Your task to perform on an android device: turn off improve location accuracy Image 0: 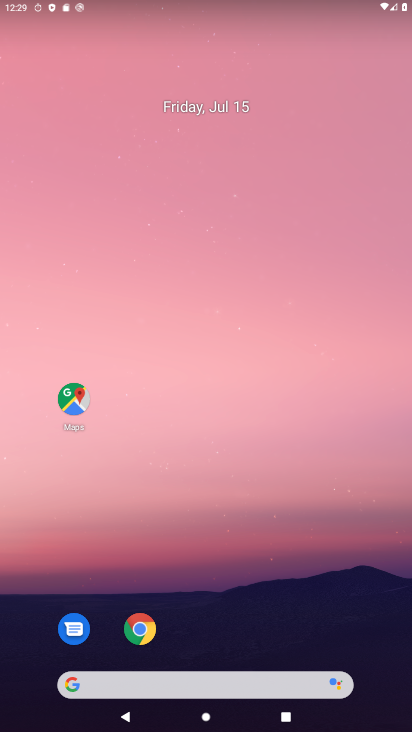
Step 0: drag from (248, 539) to (187, 2)
Your task to perform on an android device: turn off improve location accuracy Image 1: 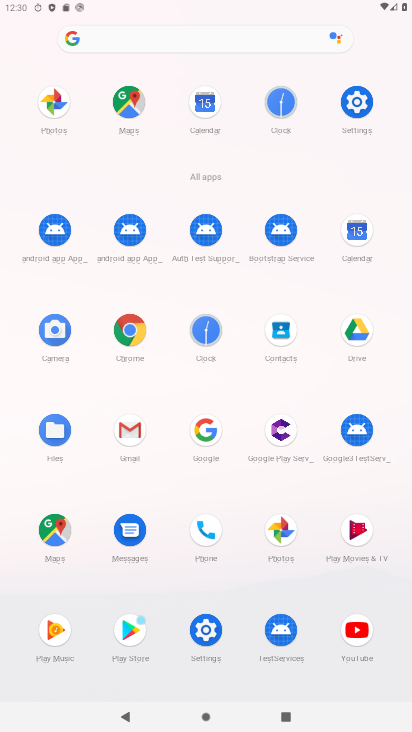
Step 1: click (210, 632)
Your task to perform on an android device: turn off improve location accuracy Image 2: 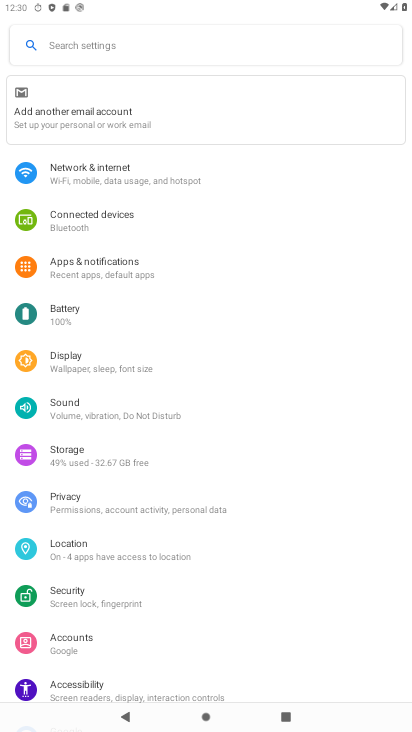
Step 2: click (106, 550)
Your task to perform on an android device: turn off improve location accuracy Image 3: 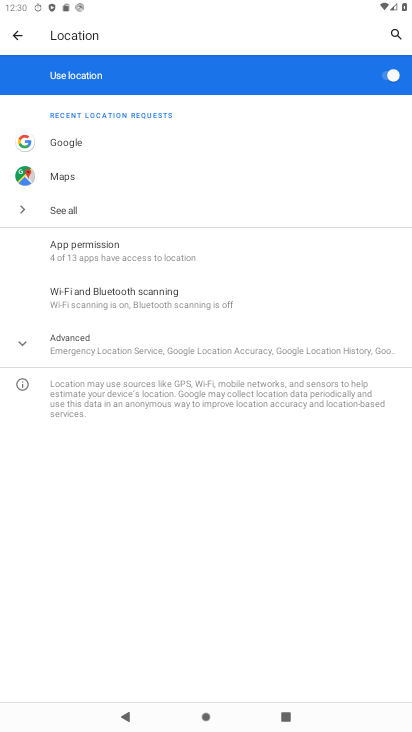
Step 3: click (150, 348)
Your task to perform on an android device: turn off improve location accuracy Image 4: 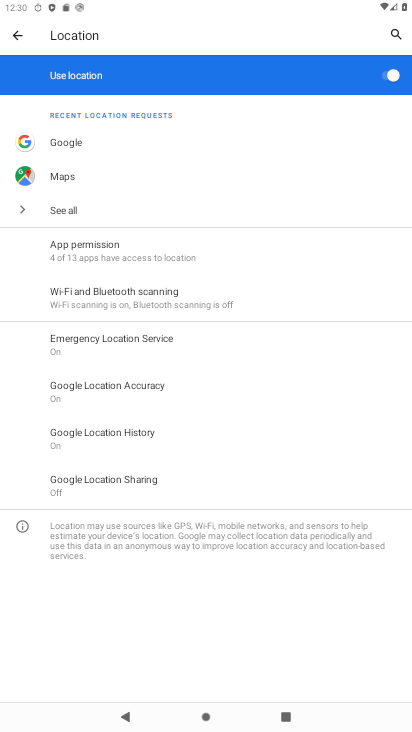
Step 4: click (140, 387)
Your task to perform on an android device: turn off improve location accuracy Image 5: 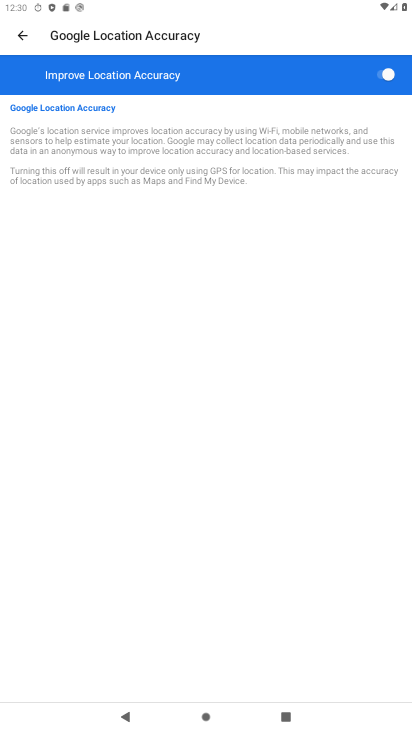
Step 5: click (373, 73)
Your task to perform on an android device: turn off improve location accuracy Image 6: 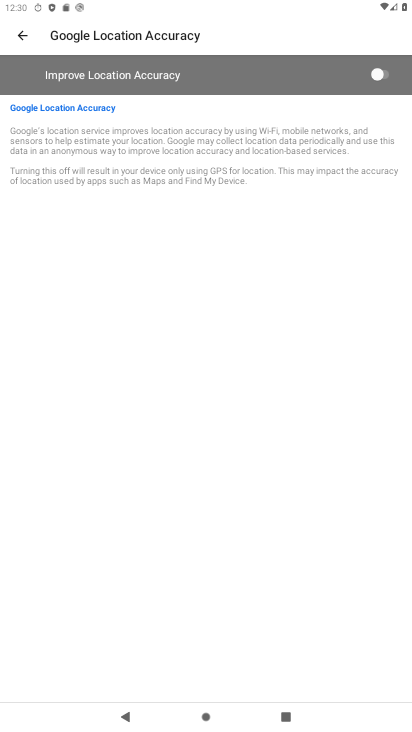
Step 6: task complete